Your task to perform on an android device: turn on the 24-hour format for clock Image 0: 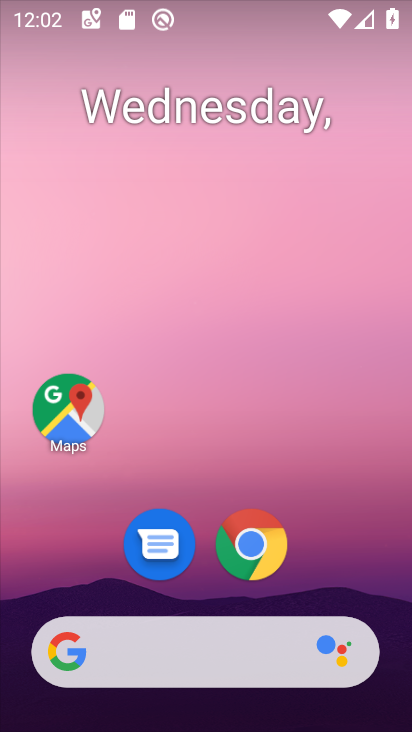
Step 0: drag from (213, 342) to (211, 156)
Your task to perform on an android device: turn on the 24-hour format for clock Image 1: 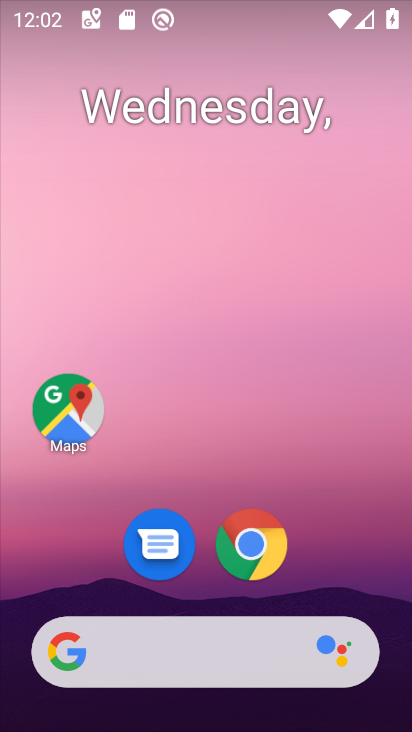
Step 1: drag from (232, 476) to (207, 85)
Your task to perform on an android device: turn on the 24-hour format for clock Image 2: 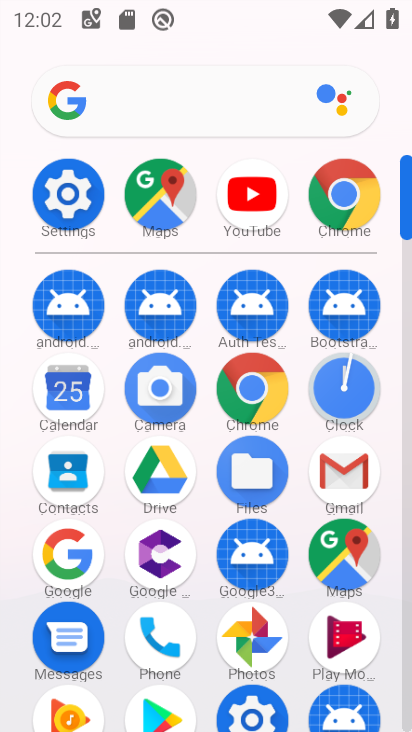
Step 2: click (337, 394)
Your task to perform on an android device: turn on the 24-hour format for clock Image 3: 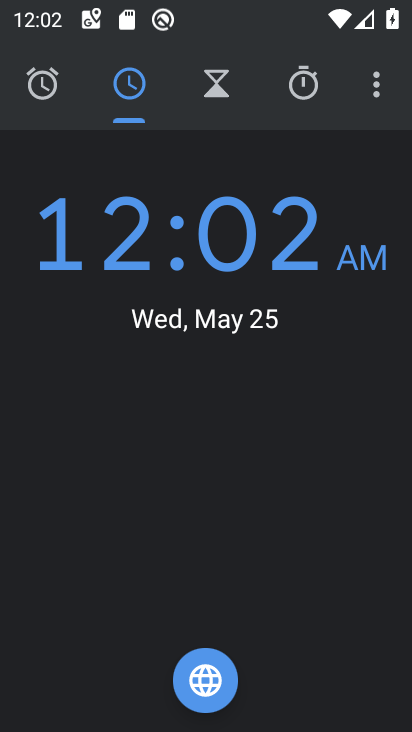
Step 3: click (382, 99)
Your task to perform on an android device: turn on the 24-hour format for clock Image 4: 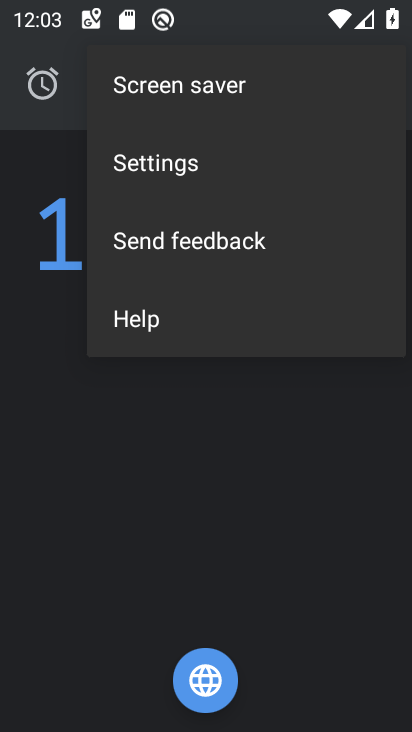
Step 4: click (206, 178)
Your task to perform on an android device: turn on the 24-hour format for clock Image 5: 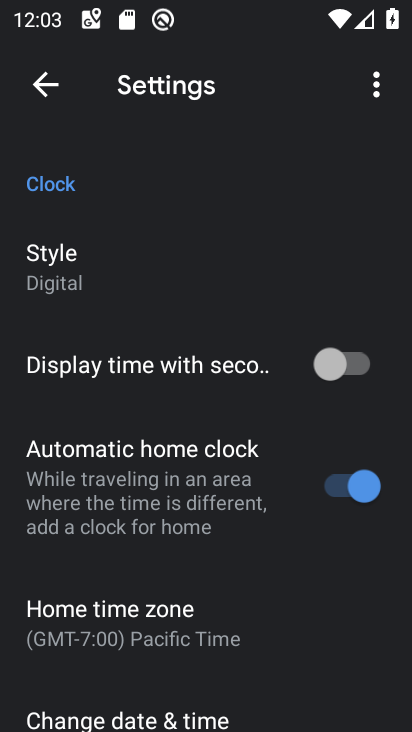
Step 5: click (134, 724)
Your task to perform on an android device: turn on the 24-hour format for clock Image 6: 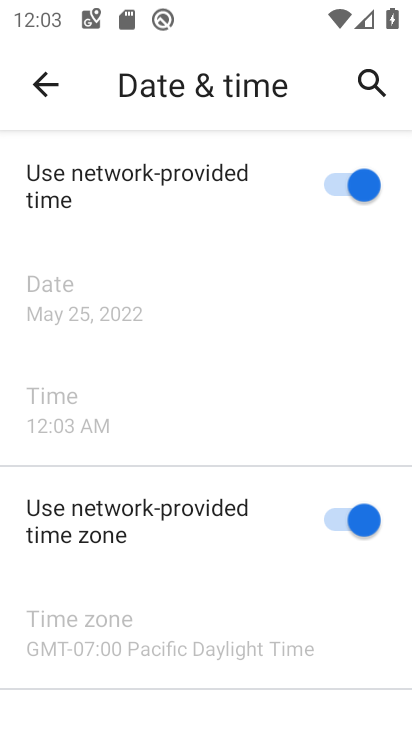
Step 6: click (372, 518)
Your task to perform on an android device: turn on the 24-hour format for clock Image 7: 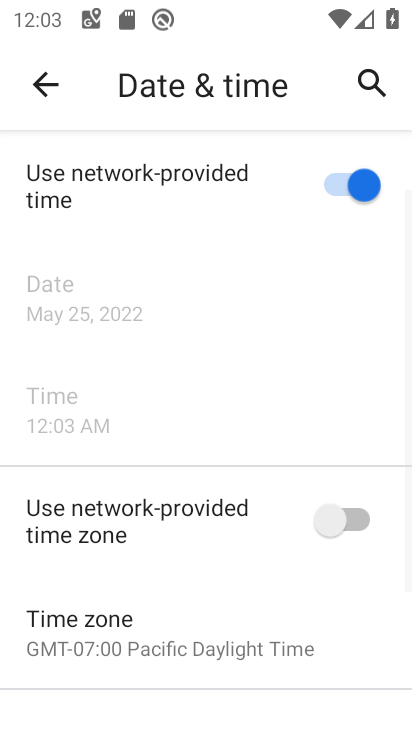
Step 7: drag from (253, 644) to (220, 493)
Your task to perform on an android device: turn on the 24-hour format for clock Image 8: 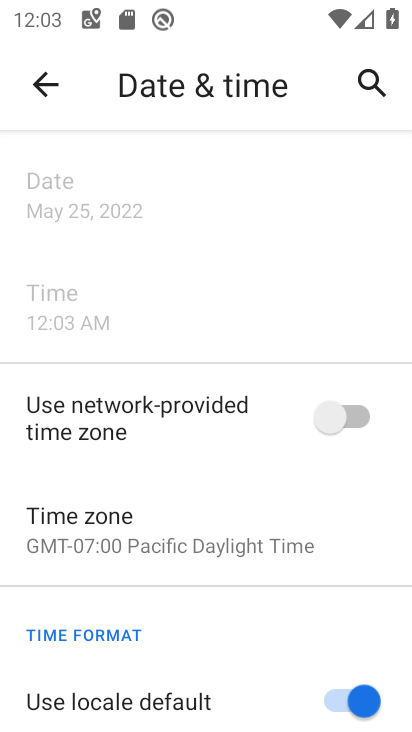
Step 8: drag from (192, 657) to (149, 226)
Your task to perform on an android device: turn on the 24-hour format for clock Image 9: 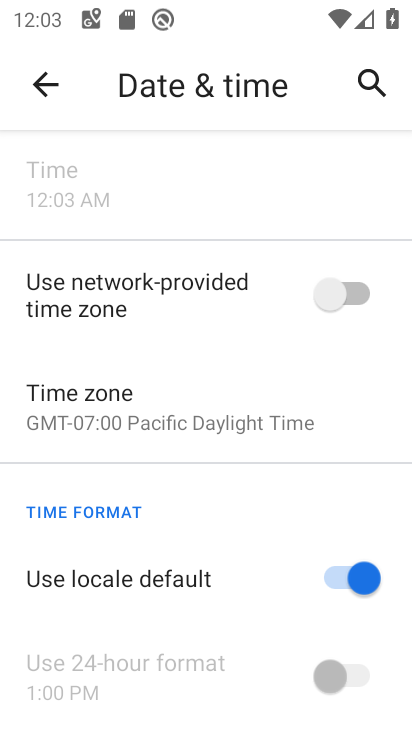
Step 9: click (331, 589)
Your task to perform on an android device: turn on the 24-hour format for clock Image 10: 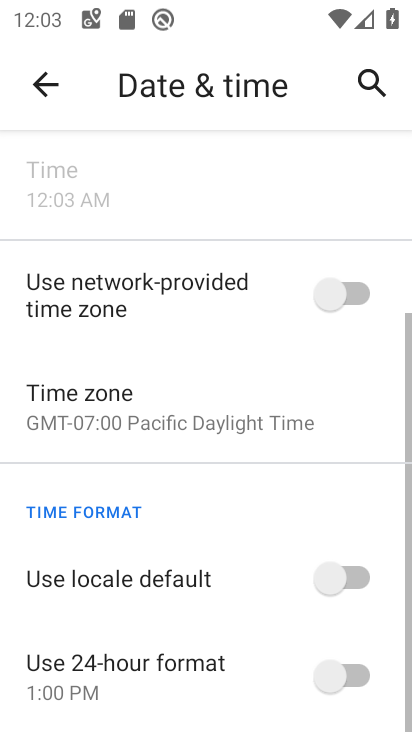
Step 10: click (332, 709)
Your task to perform on an android device: turn on the 24-hour format for clock Image 11: 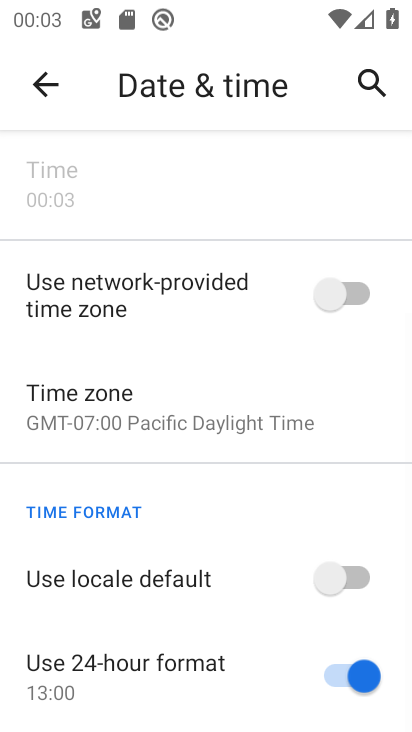
Step 11: task complete